Your task to perform on an android device: Go to Google maps Image 0: 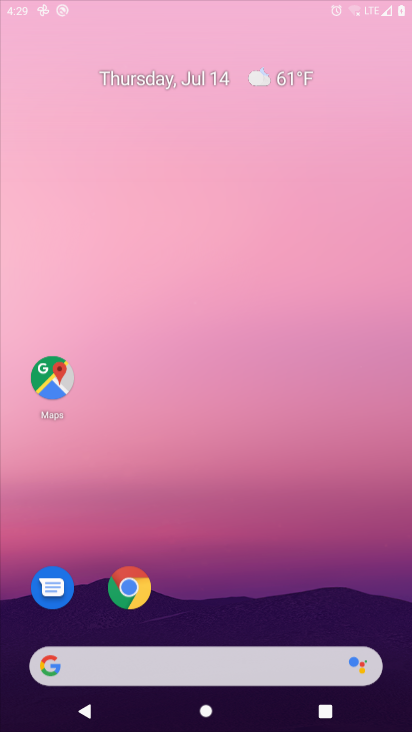
Step 0: press home button
Your task to perform on an android device: Go to Google maps Image 1: 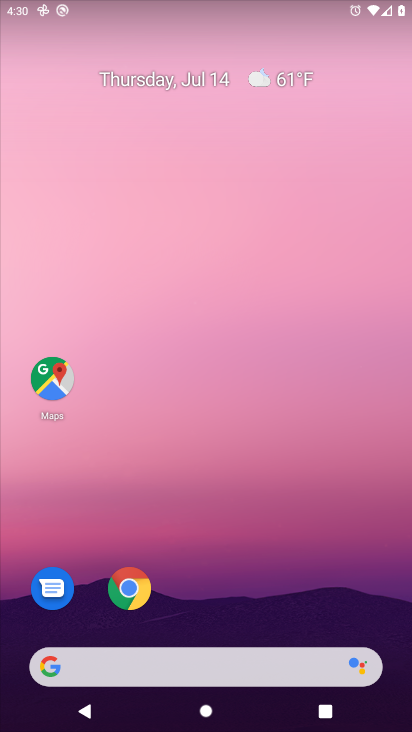
Step 1: drag from (238, 637) to (248, 106)
Your task to perform on an android device: Go to Google maps Image 2: 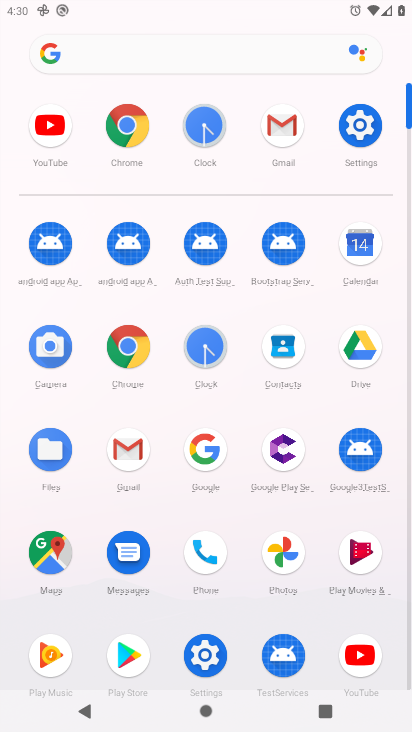
Step 2: click (51, 554)
Your task to perform on an android device: Go to Google maps Image 3: 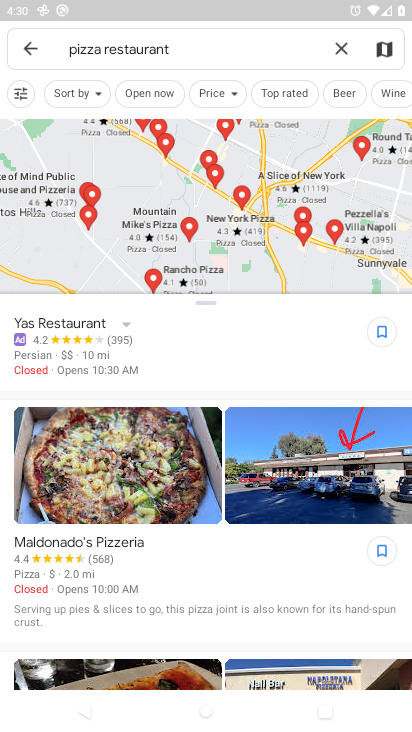
Step 3: click (341, 55)
Your task to perform on an android device: Go to Google maps Image 4: 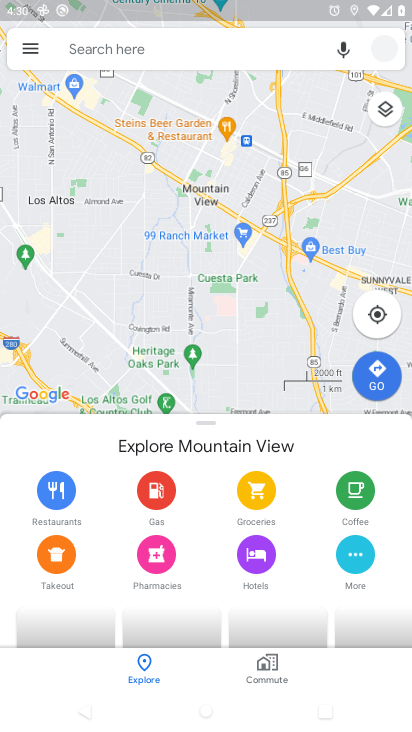
Step 4: task complete